Your task to perform on an android device: Show me the alarms in the clock app Image 0: 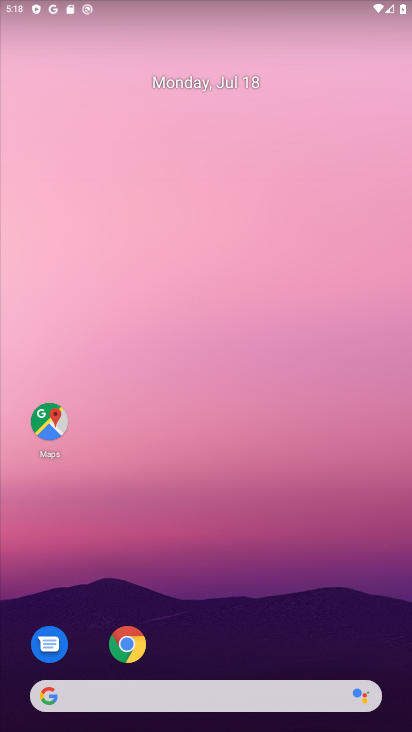
Step 0: press home button
Your task to perform on an android device: Show me the alarms in the clock app Image 1: 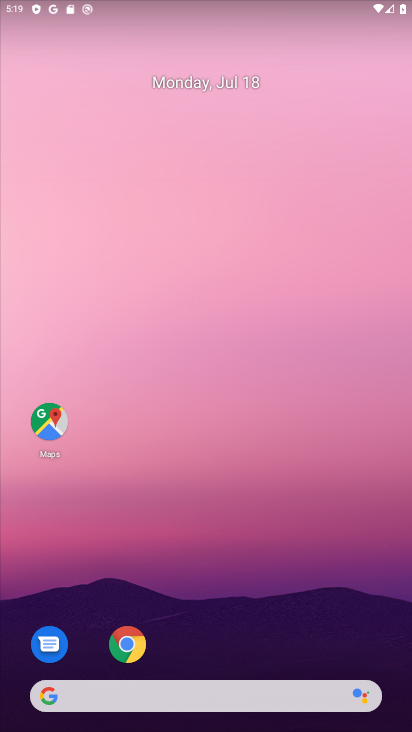
Step 1: drag from (264, 645) to (333, 52)
Your task to perform on an android device: Show me the alarms in the clock app Image 2: 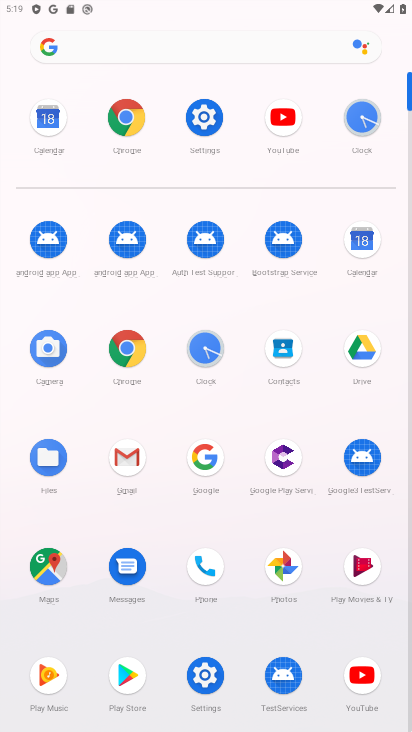
Step 2: click (205, 348)
Your task to perform on an android device: Show me the alarms in the clock app Image 3: 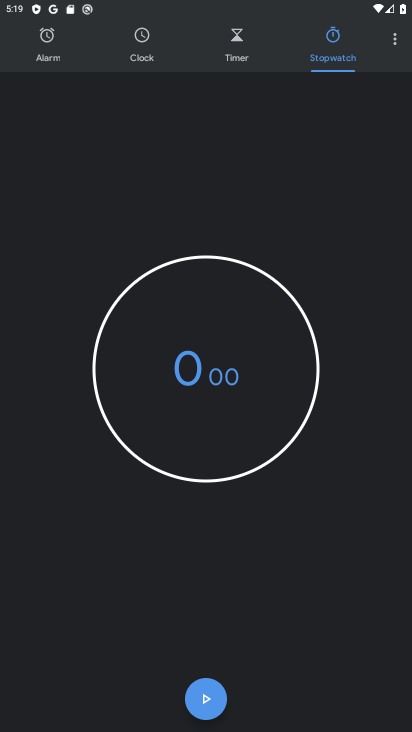
Step 3: click (49, 29)
Your task to perform on an android device: Show me the alarms in the clock app Image 4: 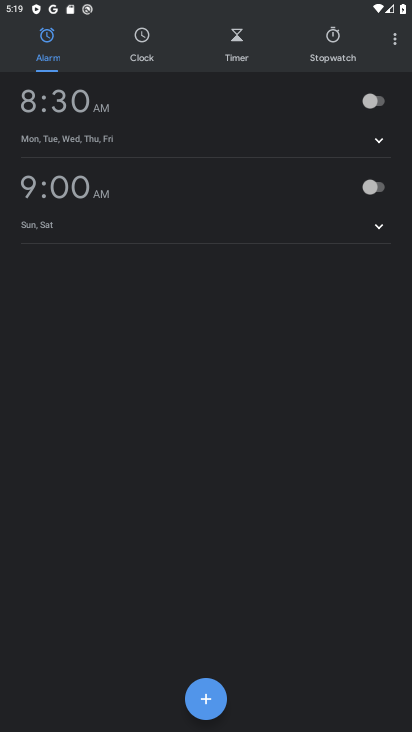
Step 4: task complete